Your task to perform on an android device: Open calendar and show me the fourth week of next month Image 0: 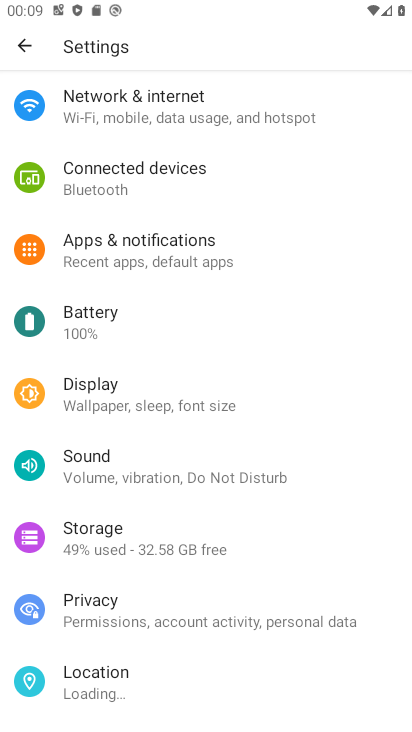
Step 0: press home button
Your task to perform on an android device: Open calendar and show me the fourth week of next month Image 1: 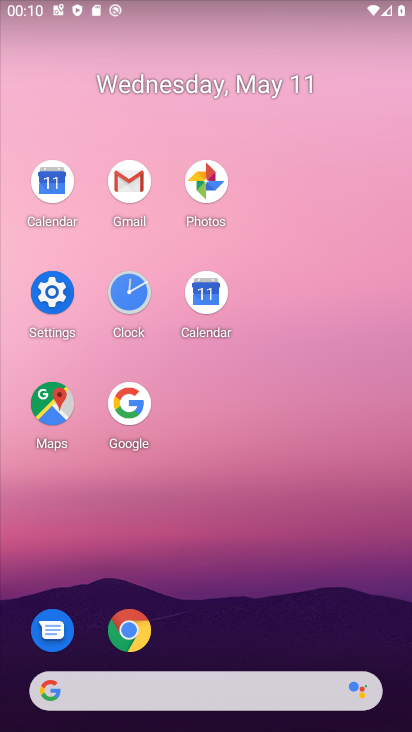
Step 1: click (193, 306)
Your task to perform on an android device: Open calendar and show me the fourth week of next month Image 2: 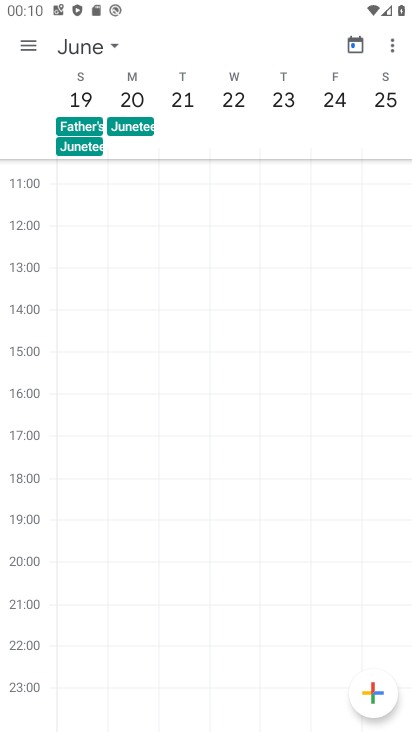
Step 2: task complete